Your task to perform on an android device: change the clock style Image 0: 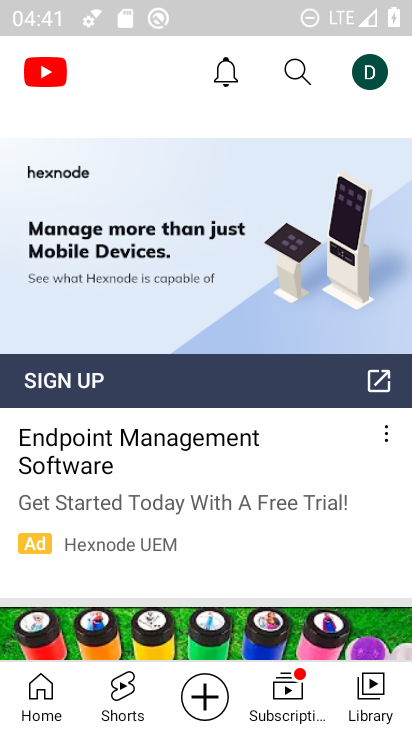
Step 0: press home button
Your task to perform on an android device: change the clock style Image 1: 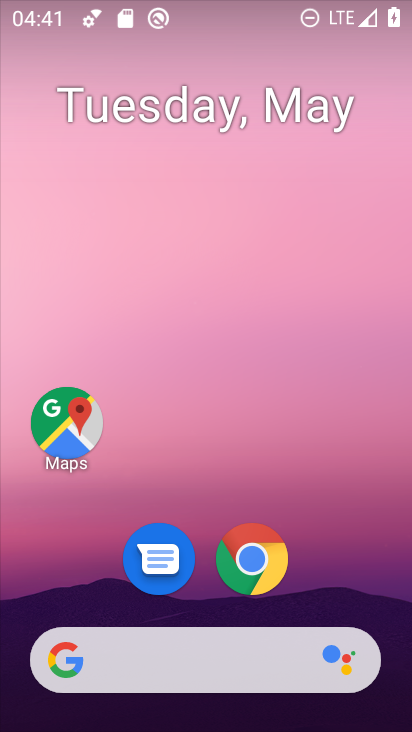
Step 1: drag from (241, 688) to (221, 192)
Your task to perform on an android device: change the clock style Image 2: 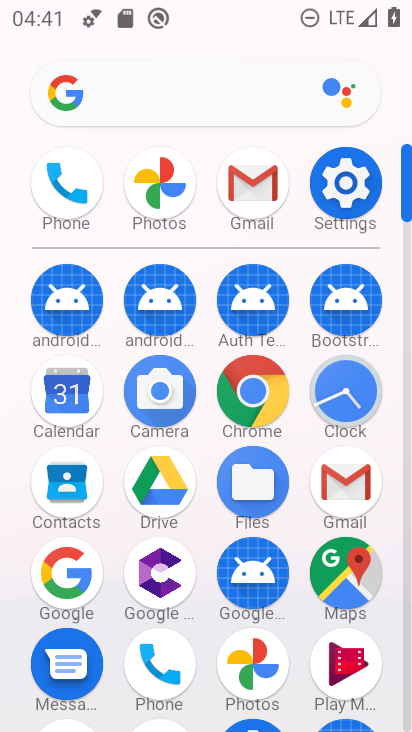
Step 2: click (354, 400)
Your task to perform on an android device: change the clock style Image 3: 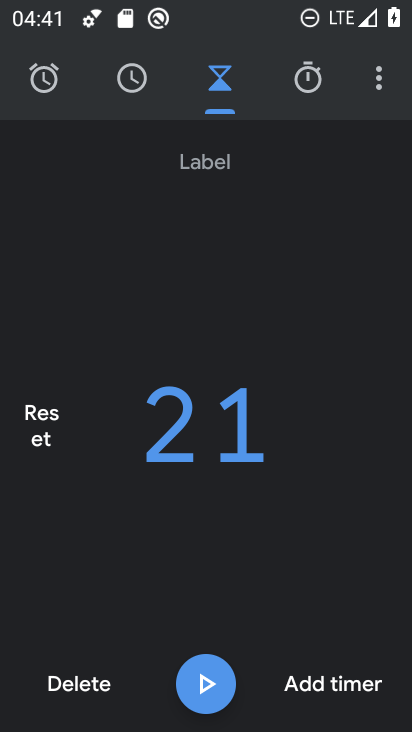
Step 3: click (377, 87)
Your task to perform on an android device: change the clock style Image 4: 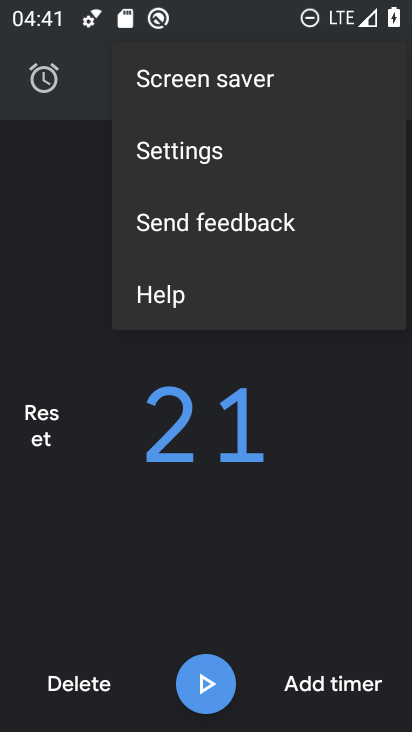
Step 4: click (195, 151)
Your task to perform on an android device: change the clock style Image 5: 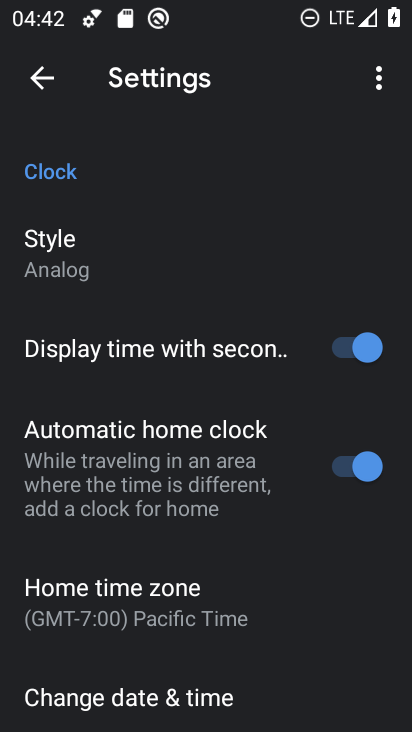
Step 5: click (78, 271)
Your task to perform on an android device: change the clock style Image 6: 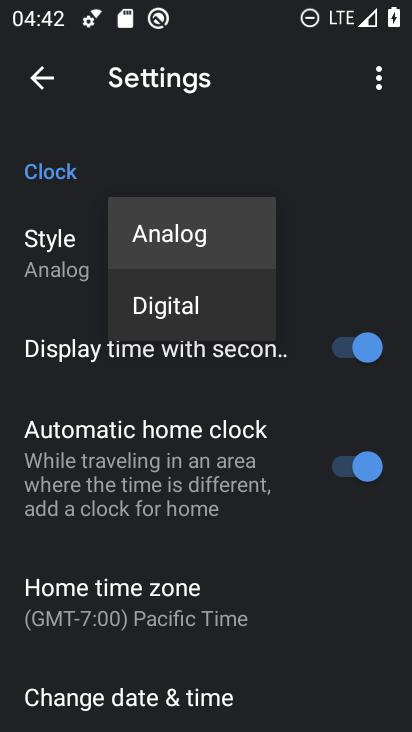
Step 6: click (178, 302)
Your task to perform on an android device: change the clock style Image 7: 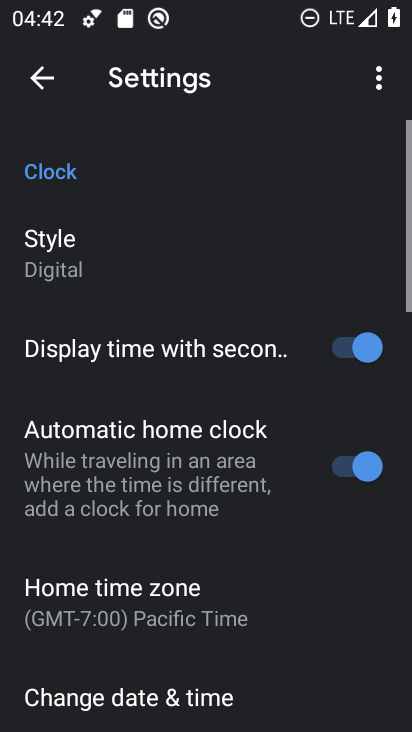
Step 7: task complete